Your task to perform on an android device: What's the weather going to be tomorrow? Image 0: 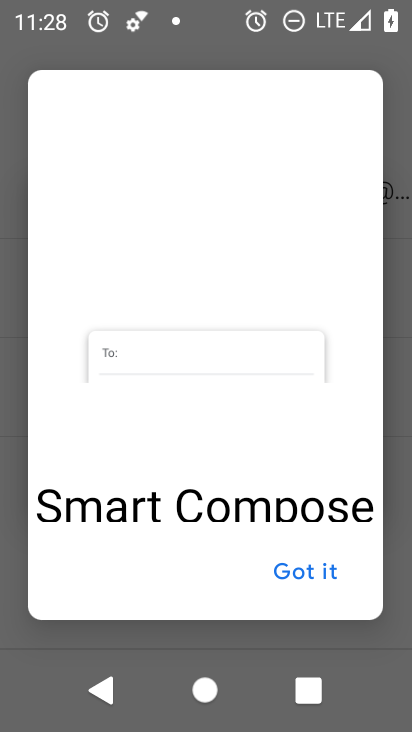
Step 0: press back button
Your task to perform on an android device: What's the weather going to be tomorrow? Image 1: 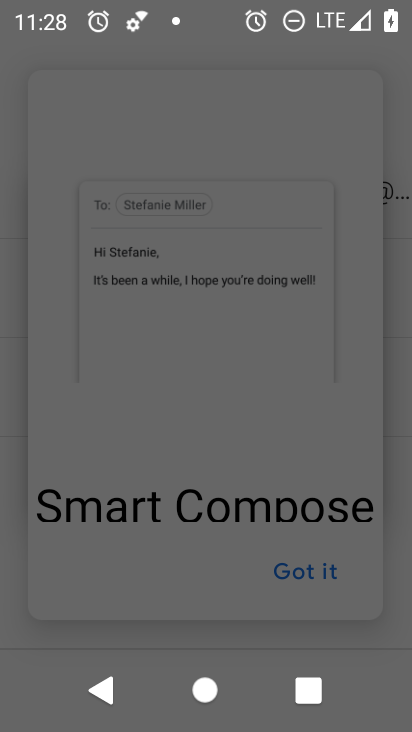
Step 1: press home button
Your task to perform on an android device: What's the weather going to be tomorrow? Image 2: 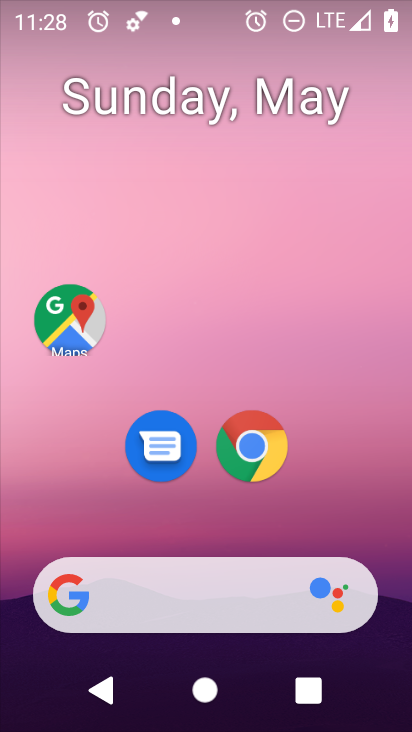
Step 2: drag from (360, 530) to (245, 11)
Your task to perform on an android device: What's the weather going to be tomorrow? Image 3: 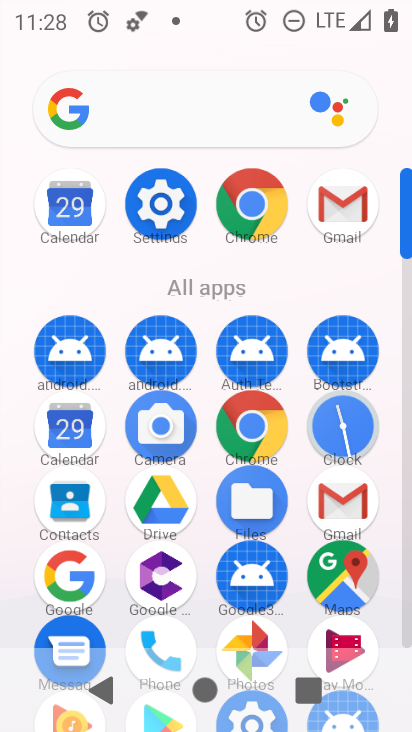
Step 3: drag from (24, 577) to (20, 283)
Your task to perform on an android device: What's the weather going to be tomorrow? Image 4: 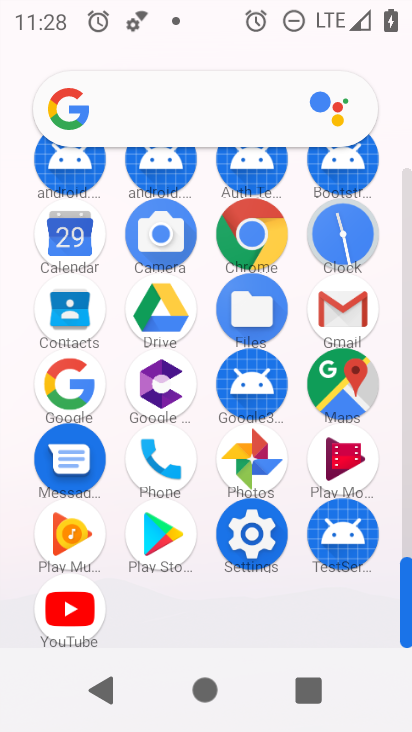
Step 4: click (256, 233)
Your task to perform on an android device: What's the weather going to be tomorrow? Image 5: 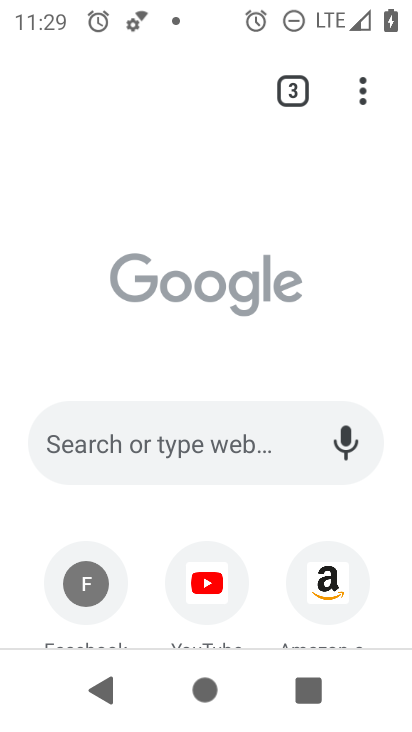
Step 5: click (169, 427)
Your task to perform on an android device: What's the weather going to be tomorrow? Image 6: 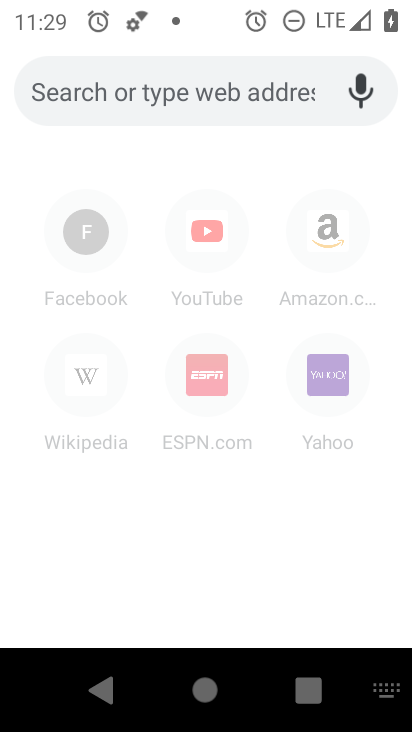
Step 6: type "What's the weather going to be tomorrow"
Your task to perform on an android device: What's the weather going to be tomorrow? Image 7: 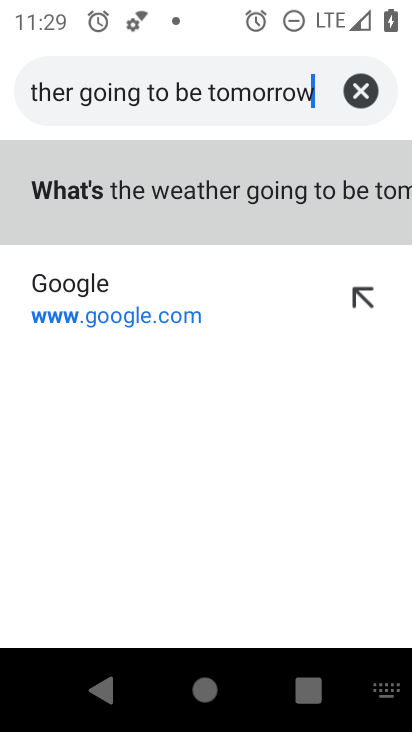
Step 7: type ""
Your task to perform on an android device: What's the weather going to be tomorrow? Image 8: 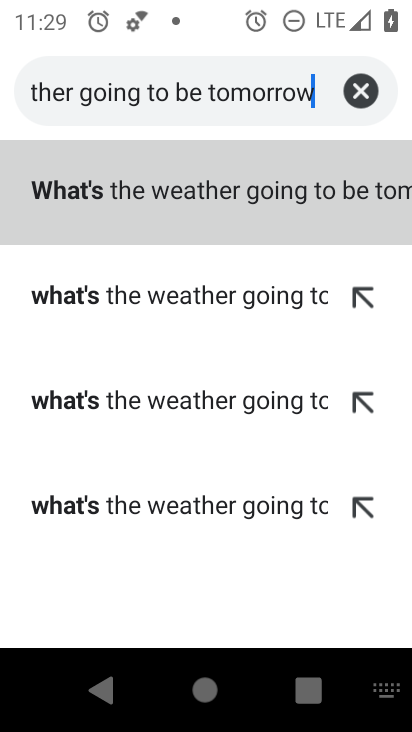
Step 8: click (212, 176)
Your task to perform on an android device: What's the weather going to be tomorrow? Image 9: 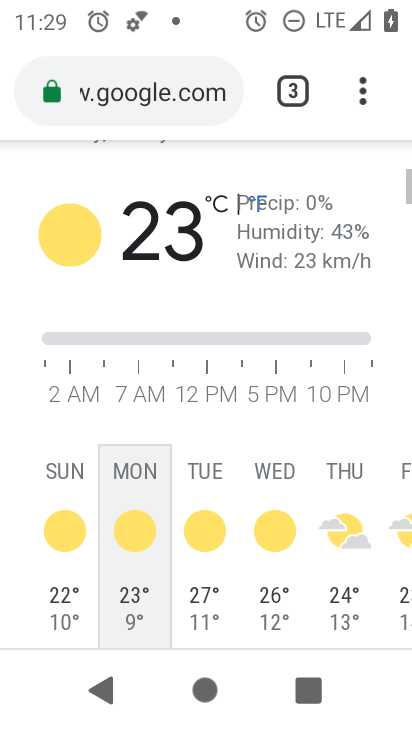
Step 9: task complete